Your task to perform on an android device: turn on data saver in the chrome app Image 0: 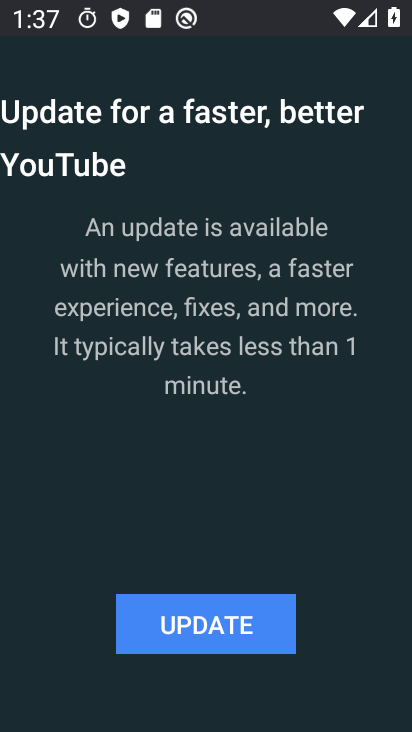
Step 0: press home button
Your task to perform on an android device: turn on data saver in the chrome app Image 1: 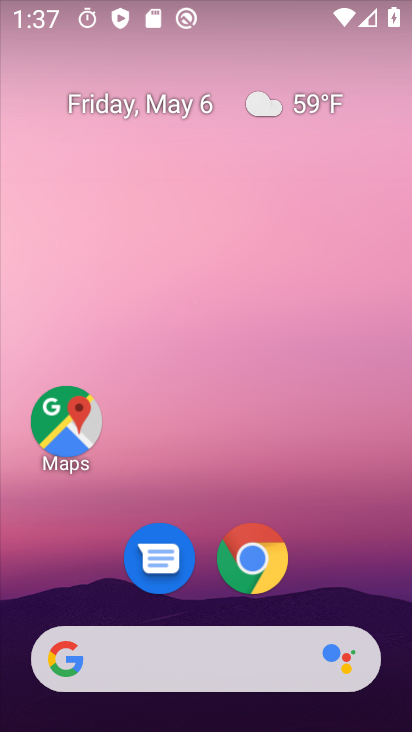
Step 1: click (255, 568)
Your task to perform on an android device: turn on data saver in the chrome app Image 2: 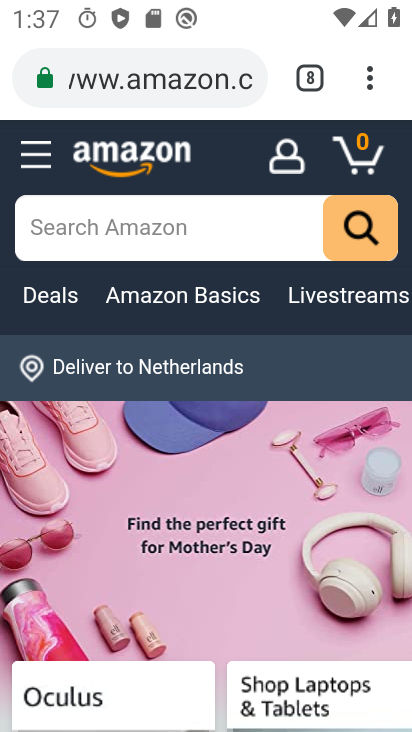
Step 2: drag from (371, 77) to (110, 598)
Your task to perform on an android device: turn on data saver in the chrome app Image 3: 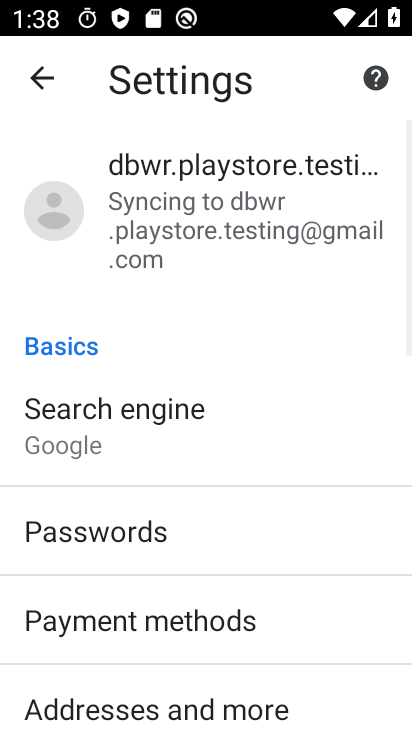
Step 3: drag from (125, 671) to (145, 251)
Your task to perform on an android device: turn on data saver in the chrome app Image 4: 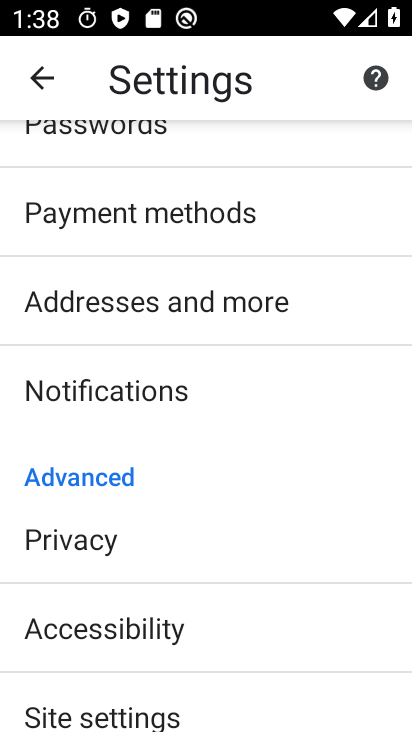
Step 4: drag from (138, 666) to (143, 345)
Your task to perform on an android device: turn on data saver in the chrome app Image 5: 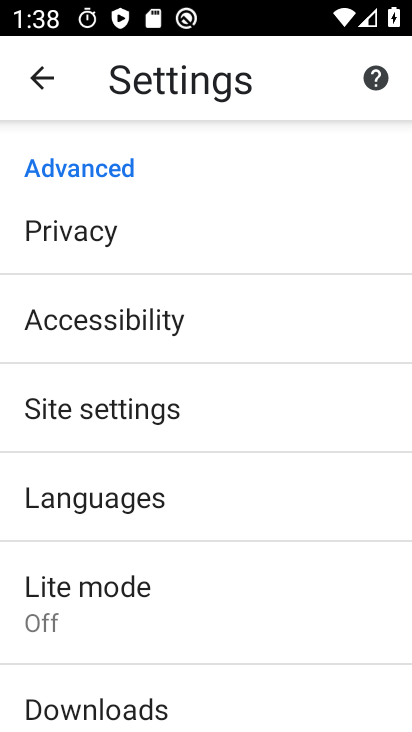
Step 5: drag from (123, 652) to (115, 474)
Your task to perform on an android device: turn on data saver in the chrome app Image 6: 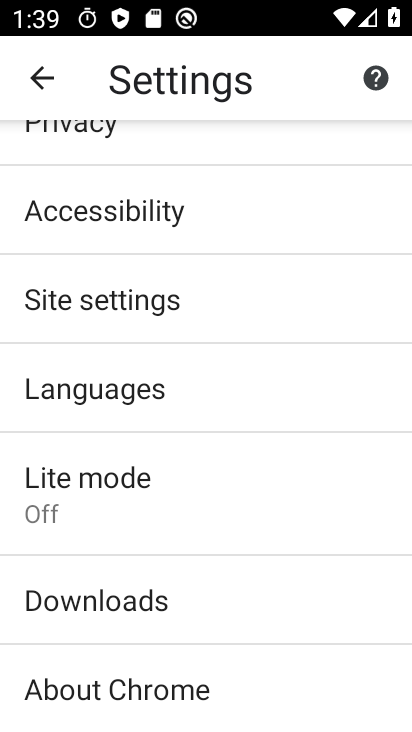
Step 6: click (111, 471)
Your task to perform on an android device: turn on data saver in the chrome app Image 7: 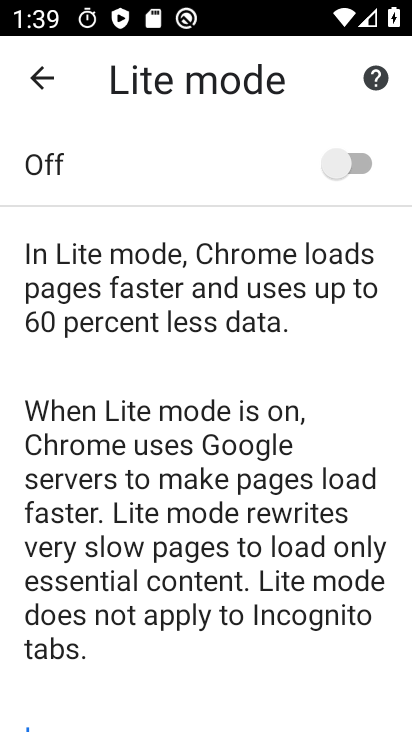
Step 7: click (358, 164)
Your task to perform on an android device: turn on data saver in the chrome app Image 8: 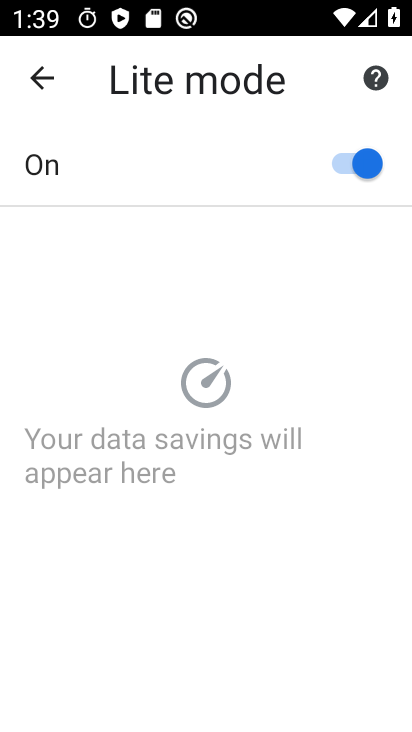
Step 8: task complete